Your task to perform on an android device: Show me the alarms in the clock app Image 0: 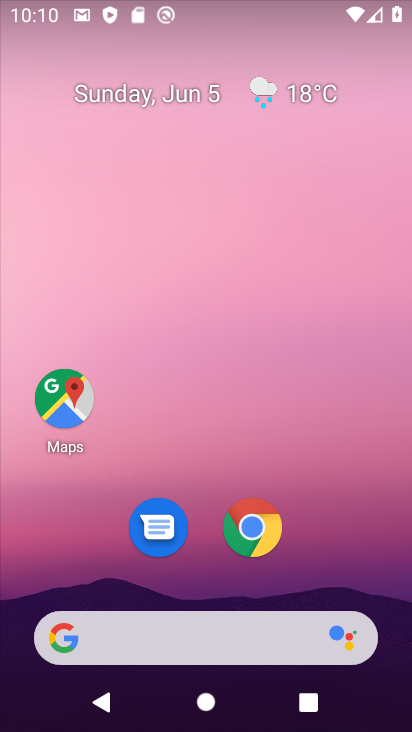
Step 0: drag from (26, 709) to (294, 135)
Your task to perform on an android device: Show me the alarms in the clock app Image 1: 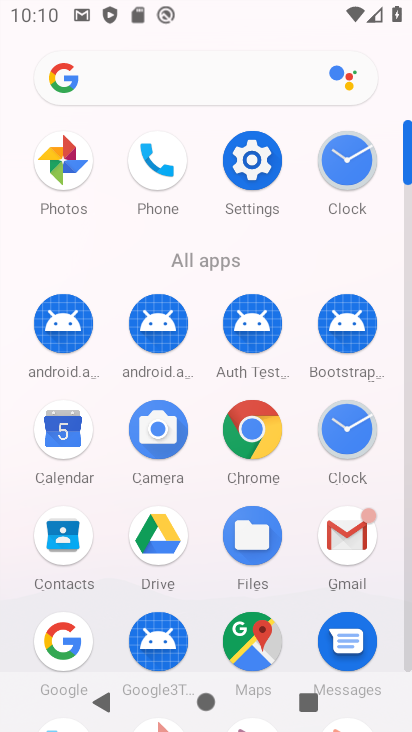
Step 1: click (350, 174)
Your task to perform on an android device: Show me the alarms in the clock app Image 2: 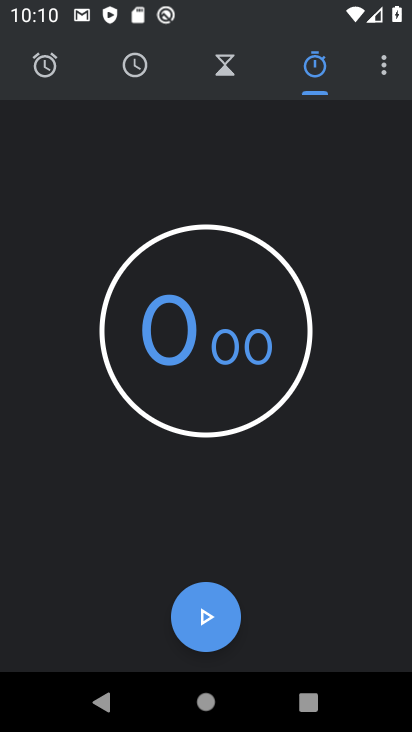
Step 2: click (32, 64)
Your task to perform on an android device: Show me the alarms in the clock app Image 3: 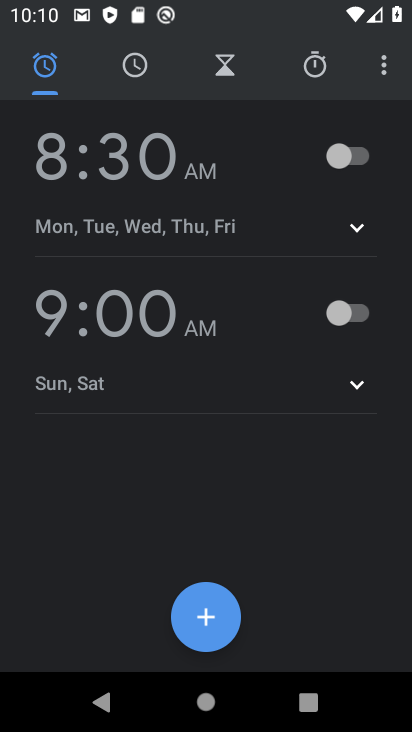
Step 3: click (198, 617)
Your task to perform on an android device: Show me the alarms in the clock app Image 4: 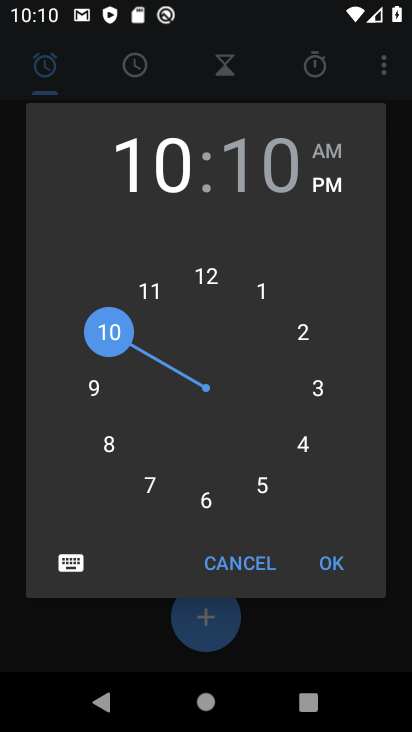
Step 4: click (330, 545)
Your task to perform on an android device: Show me the alarms in the clock app Image 5: 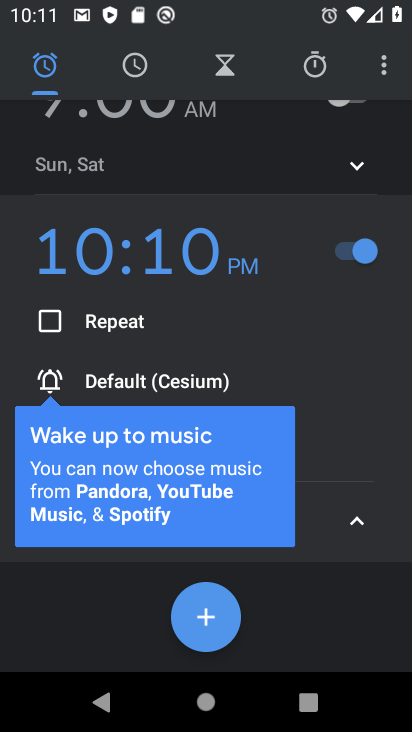
Step 5: task complete